Your task to perform on an android device: Go to Yahoo.com Image 0: 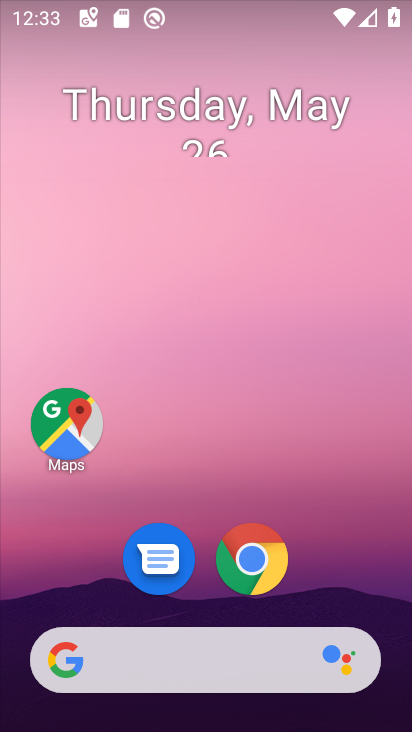
Step 0: press home button
Your task to perform on an android device: Go to Yahoo.com Image 1: 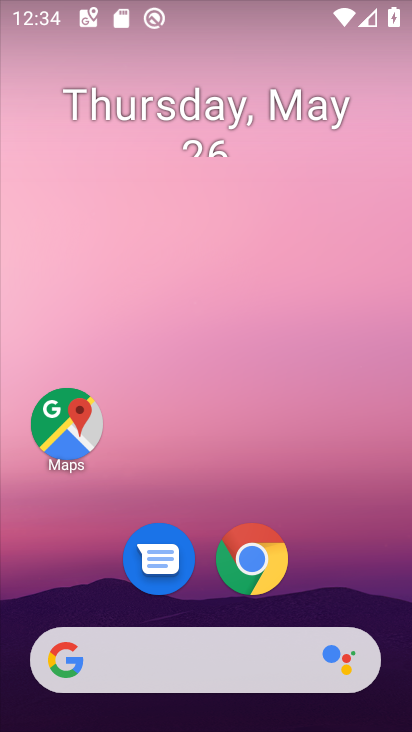
Step 1: click (59, 674)
Your task to perform on an android device: Go to Yahoo.com Image 2: 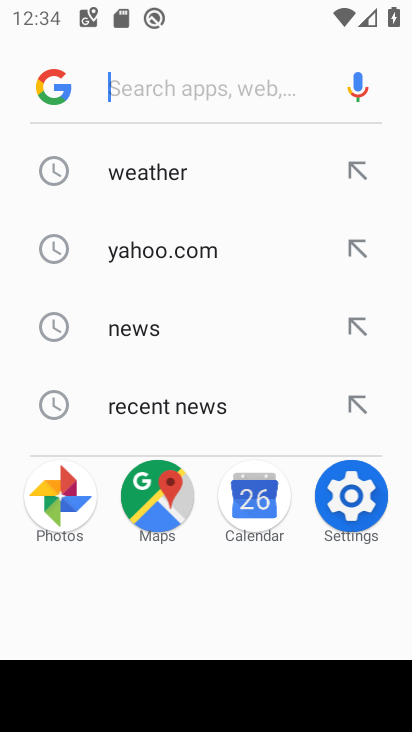
Step 2: click (168, 254)
Your task to perform on an android device: Go to Yahoo.com Image 3: 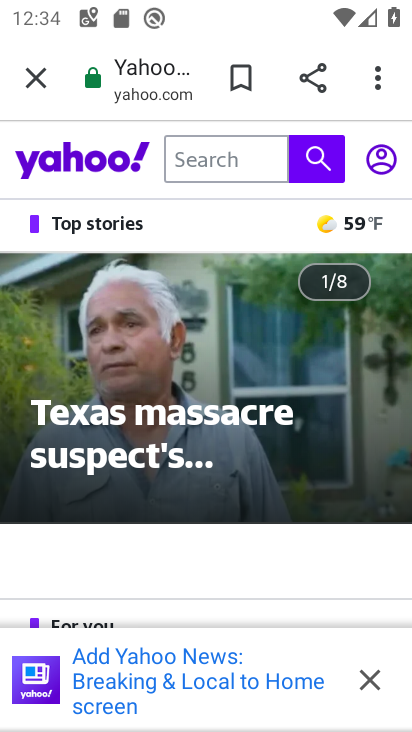
Step 3: task complete